Your task to perform on an android device: Open Google Maps and go to "Timeline" Image 0: 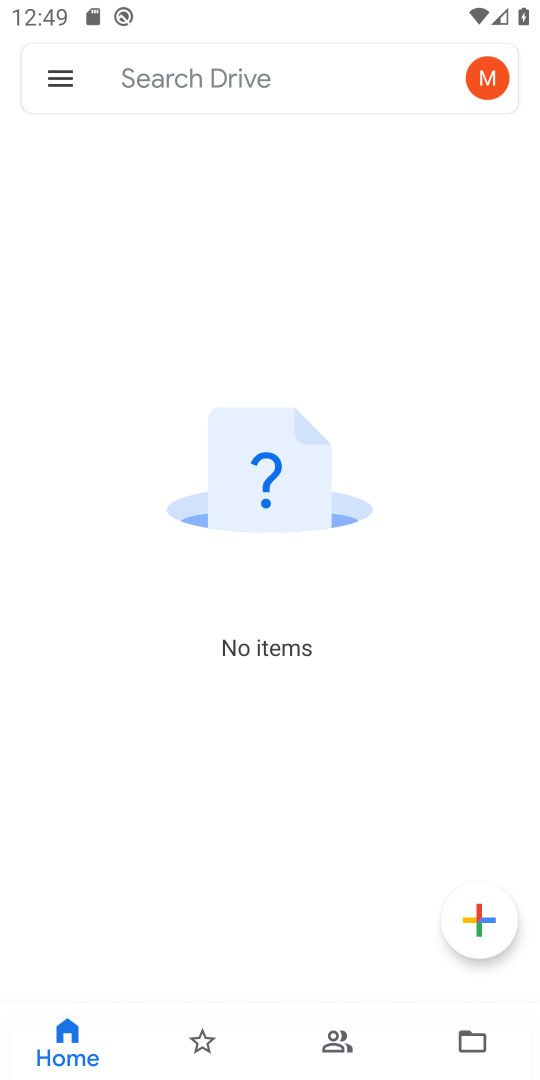
Step 0: press home button
Your task to perform on an android device: Open Google Maps and go to "Timeline" Image 1: 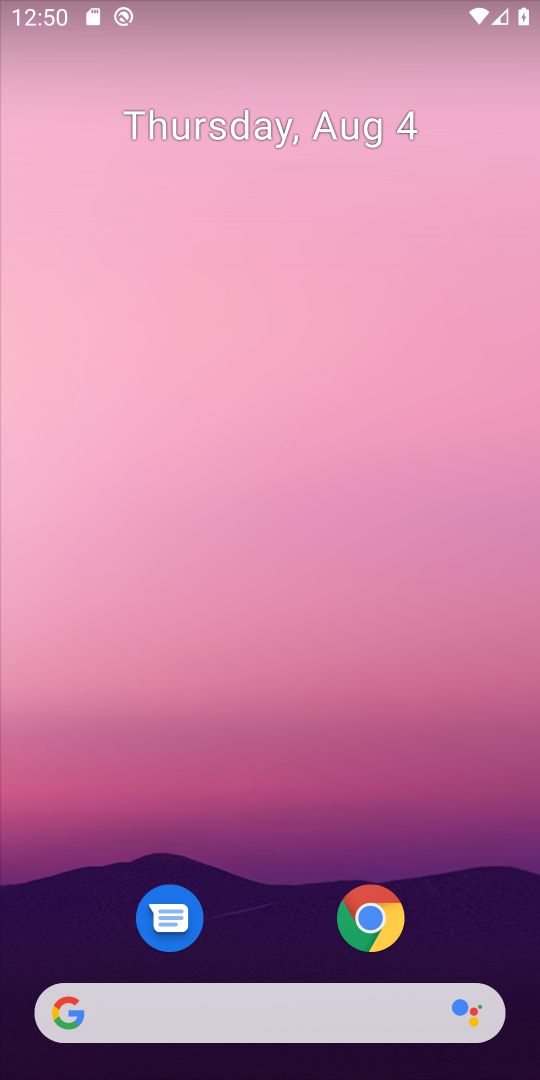
Step 1: drag from (252, 930) to (178, 527)
Your task to perform on an android device: Open Google Maps and go to "Timeline" Image 2: 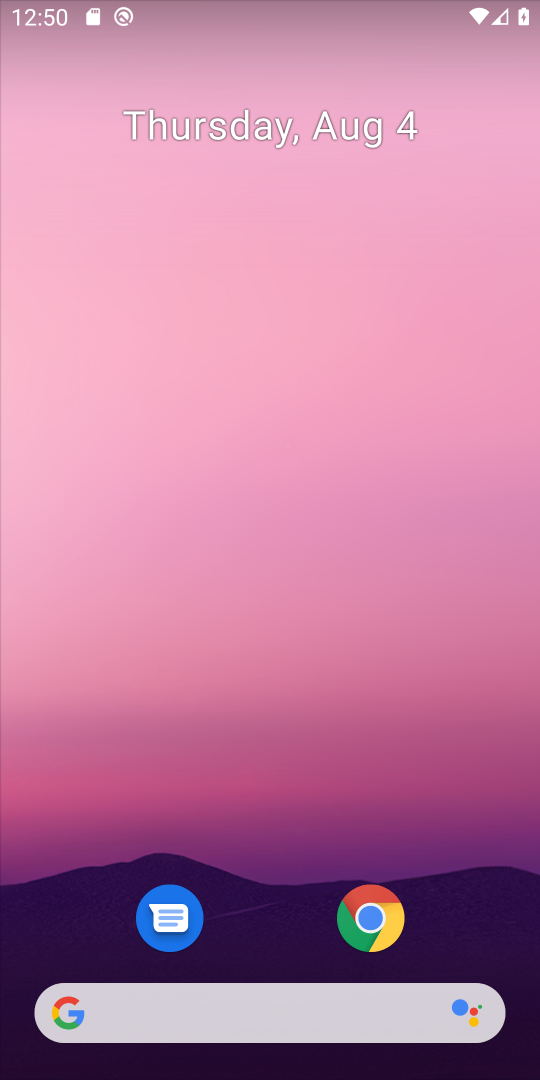
Step 2: drag from (285, 962) to (303, 398)
Your task to perform on an android device: Open Google Maps and go to "Timeline" Image 3: 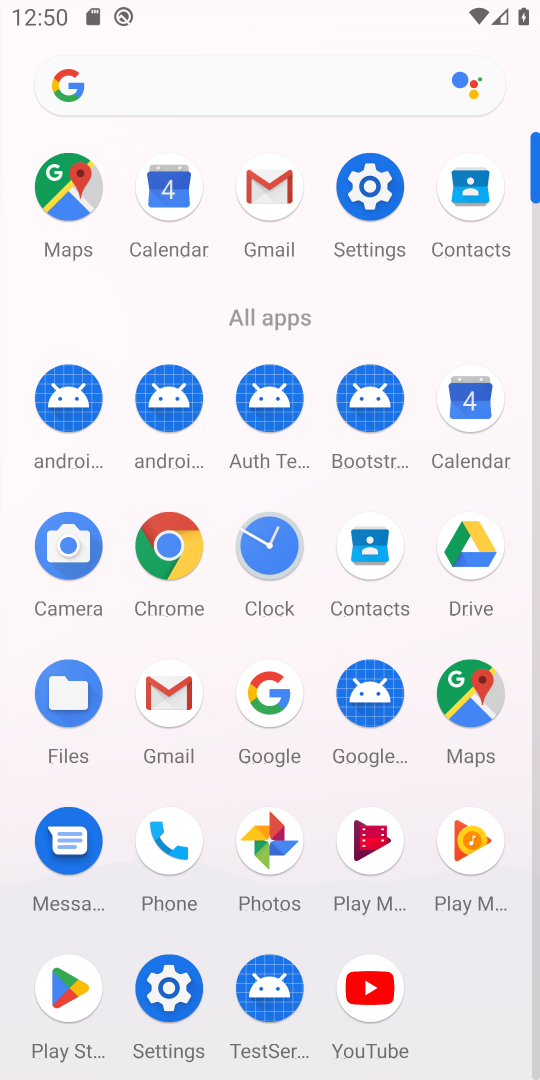
Step 3: click (74, 247)
Your task to perform on an android device: Open Google Maps and go to "Timeline" Image 4: 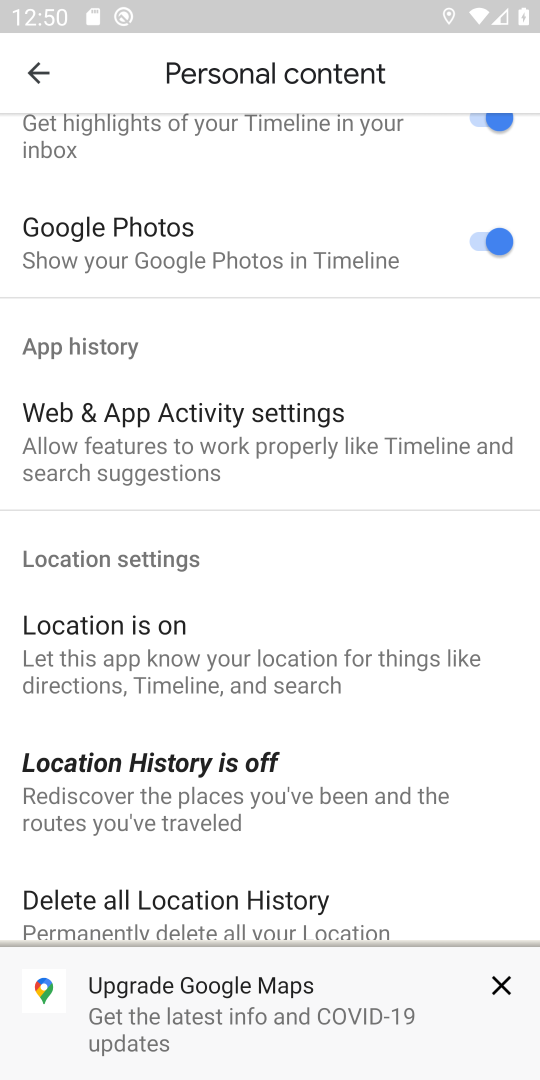
Step 4: click (36, 84)
Your task to perform on an android device: Open Google Maps and go to "Timeline" Image 5: 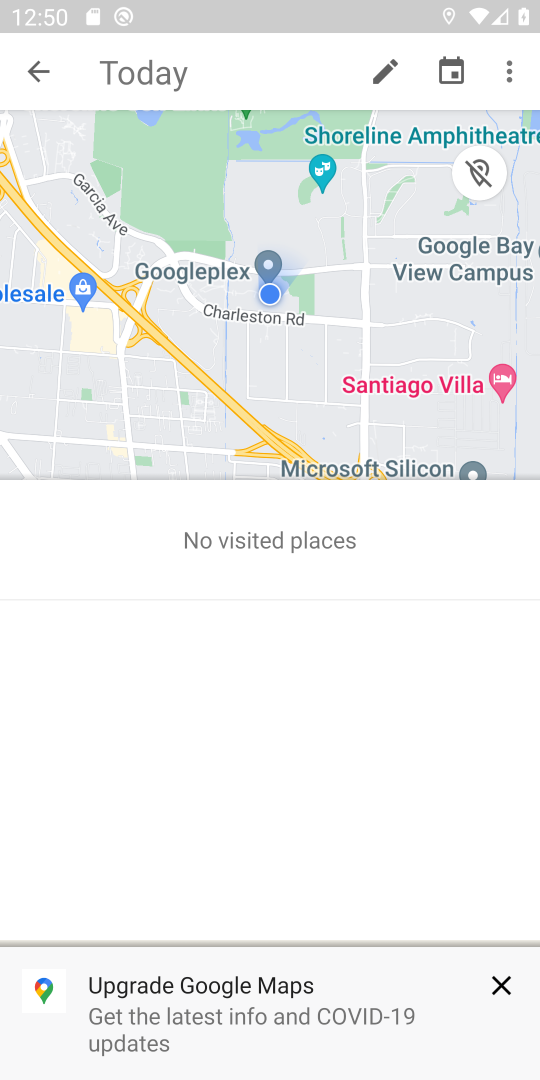
Step 5: click (40, 86)
Your task to perform on an android device: Open Google Maps and go to "Timeline" Image 6: 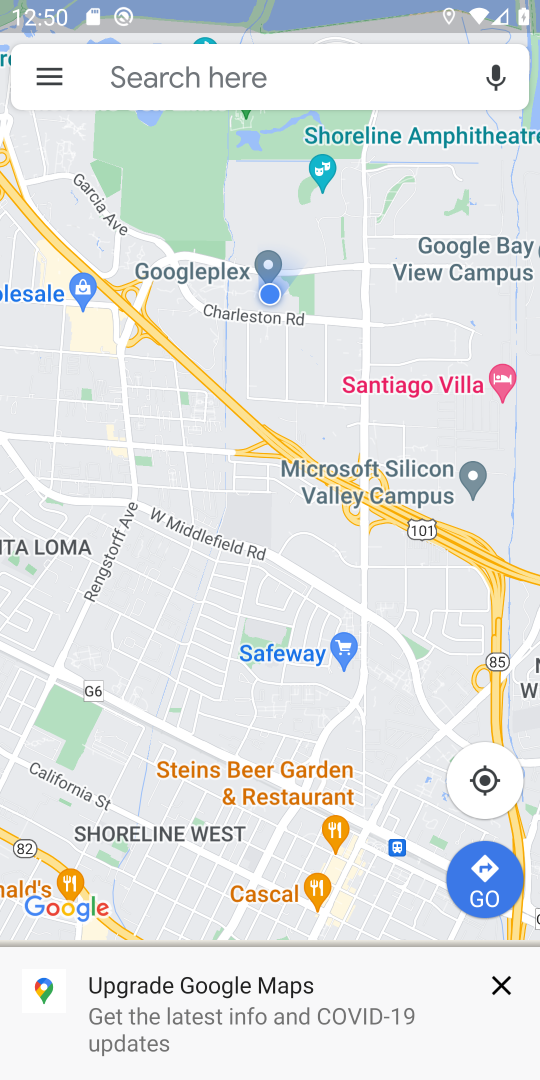
Step 6: click (40, 86)
Your task to perform on an android device: Open Google Maps and go to "Timeline" Image 7: 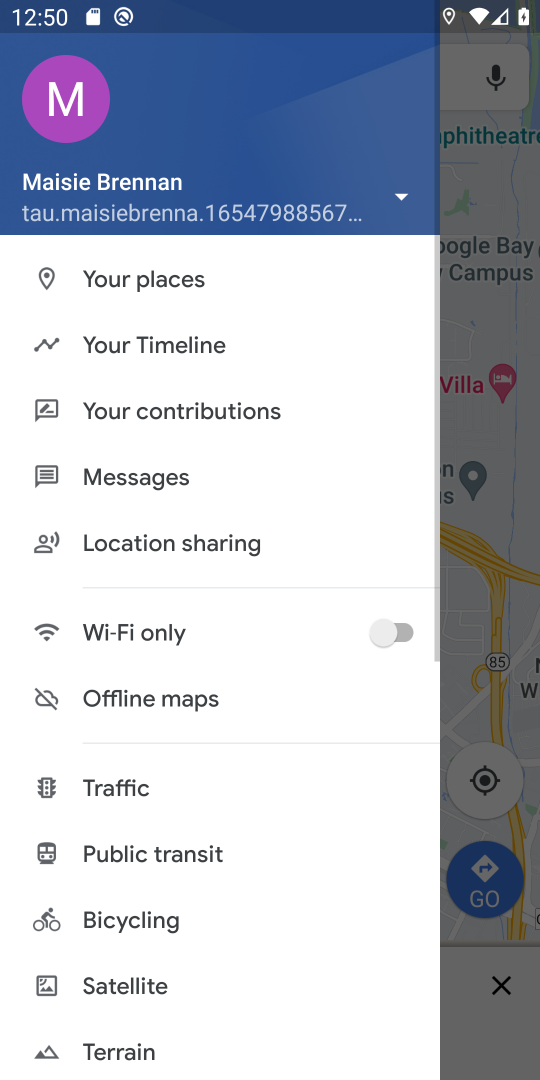
Step 7: click (214, 352)
Your task to perform on an android device: Open Google Maps and go to "Timeline" Image 8: 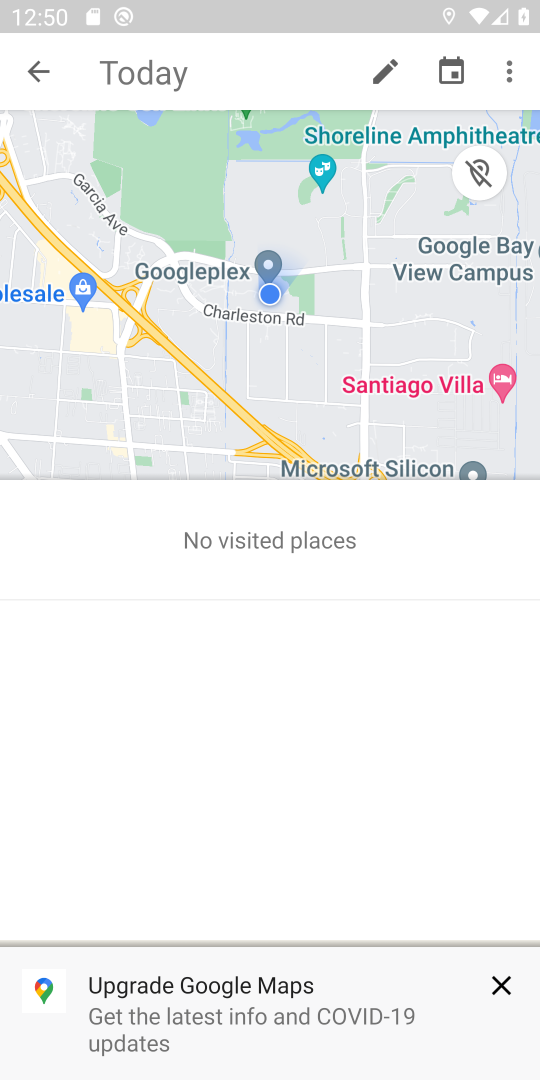
Step 8: task complete